Your task to perform on an android device: Open maps Image 0: 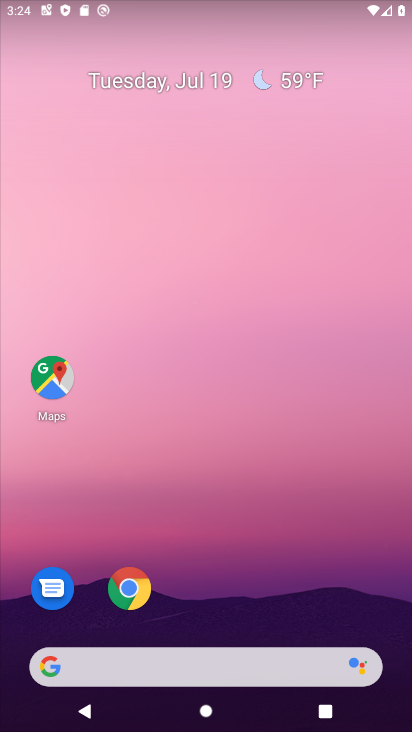
Step 0: click (57, 388)
Your task to perform on an android device: Open maps Image 1: 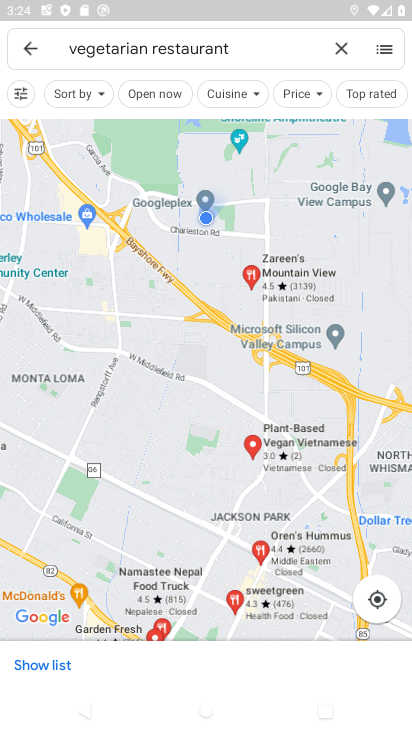
Step 1: task complete